Your task to perform on an android device: Is it going to rain this weekend? Image 0: 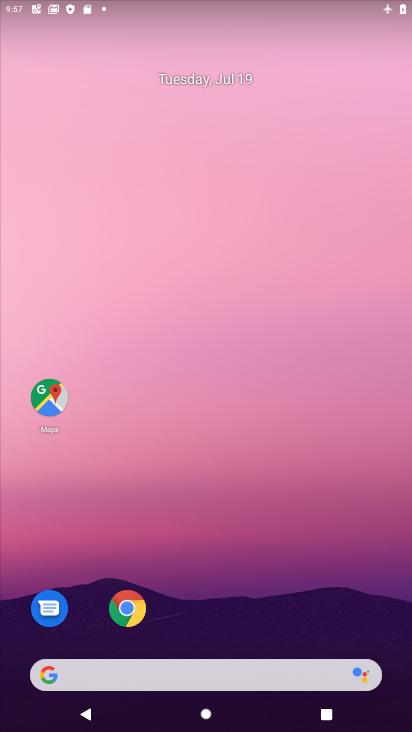
Step 0: drag from (270, 609) to (203, 26)
Your task to perform on an android device: Is it going to rain this weekend? Image 1: 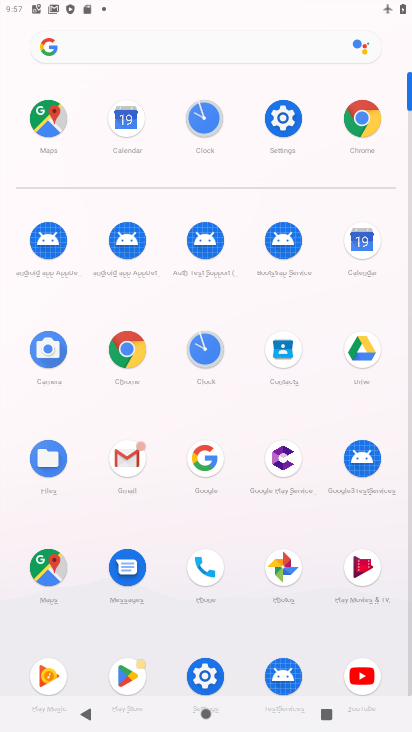
Step 1: click (361, 118)
Your task to perform on an android device: Is it going to rain this weekend? Image 2: 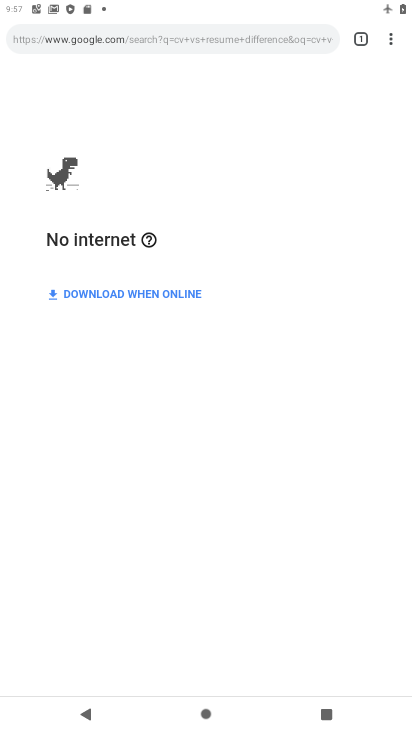
Step 2: click (295, 41)
Your task to perform on an android device: Is it going to rain this weekend? Image 3: 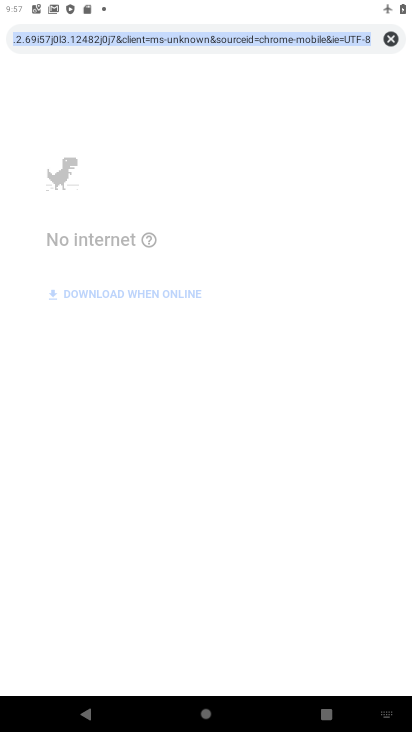
Step 3: type "weather"
Your task to perform on an android device: Is it going to rain this weekend? Image 4: 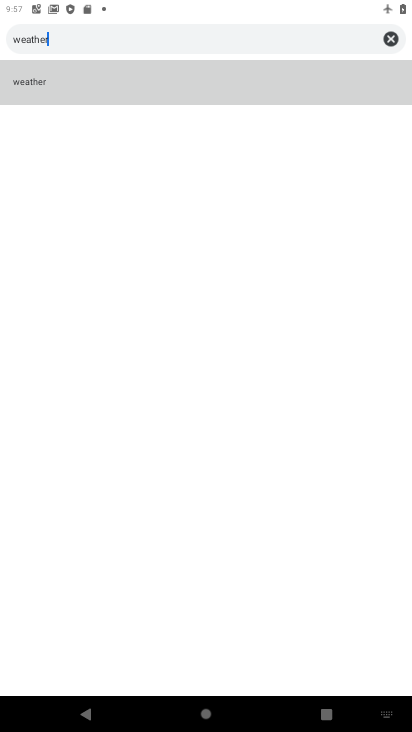
Step 4: click (68, 73)
Your task to perform on an android device: Is it going to rain this weekend? Image 5: 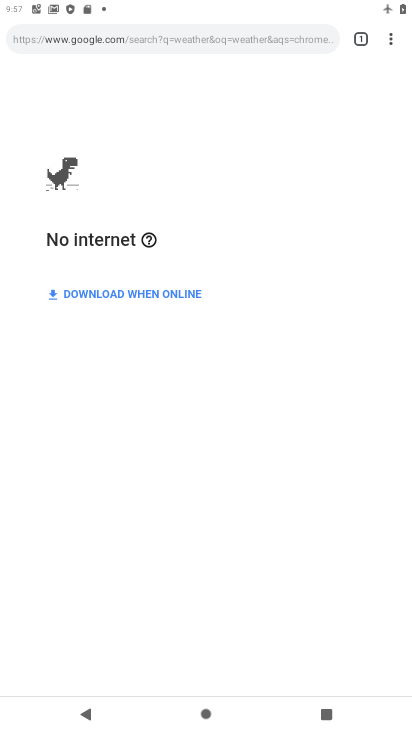
Step 5: task complete